Your task to perform on an android device: What's the weather going to be tomorrow? Image 0: 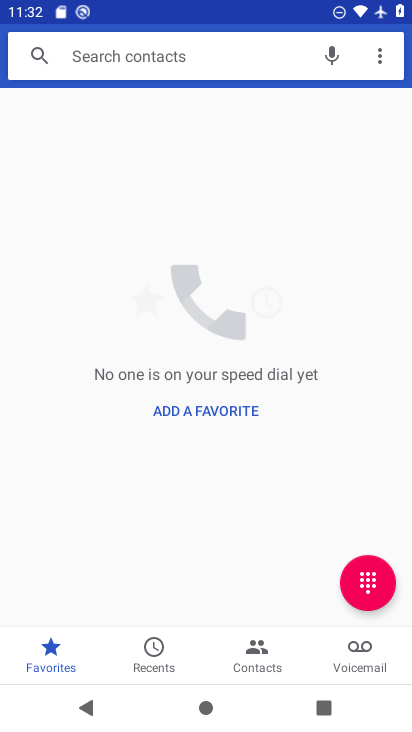
Step 0: press home button
Your task to perform on an android device: What's the weather going to be tomorrow? Image 1: 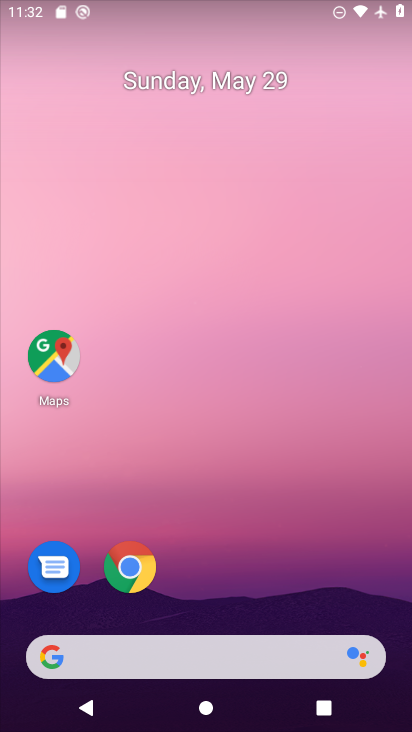
Step 1: click (187, 669)
Your task to perform on an android device: What's the weather going to be tomorrow? Image 2: 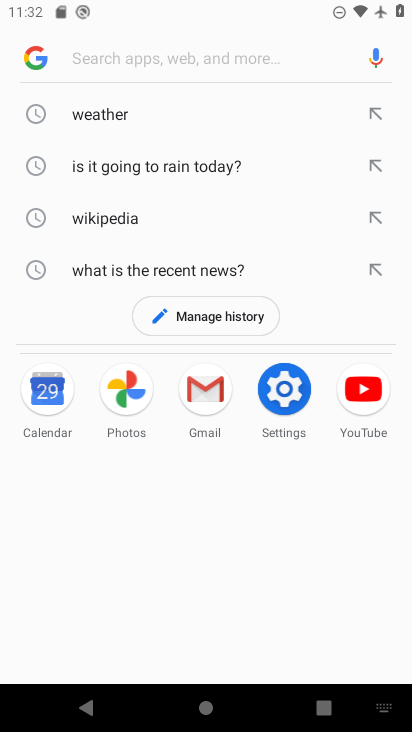
Step 2: click (93, 111)
Your task to perform on an android device: What's the weather going to be tomorrow? Image 3: 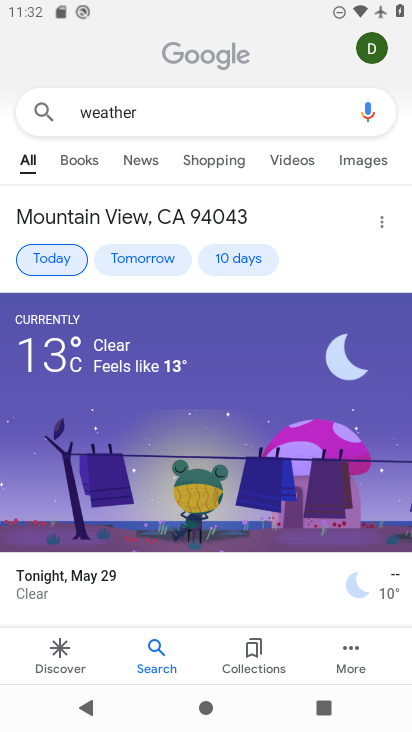
Step 3: click (143, 269)
Your task to perform on an android device: What's the weather going to be tomorrow? Image 4: 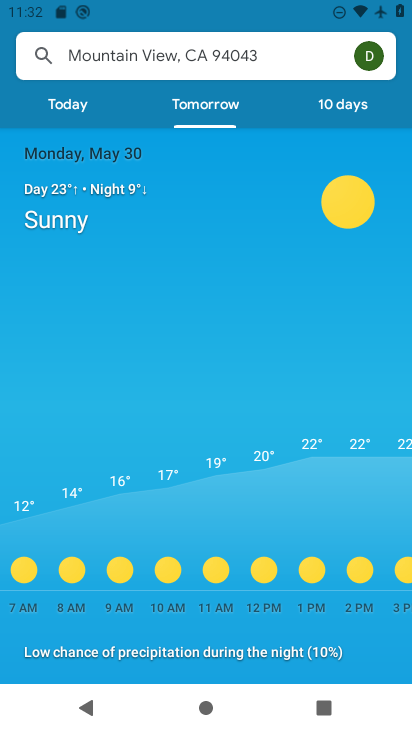
Step 4: task complete